Your task to perform on an android device: Do I have any events this weekend? Image 0: 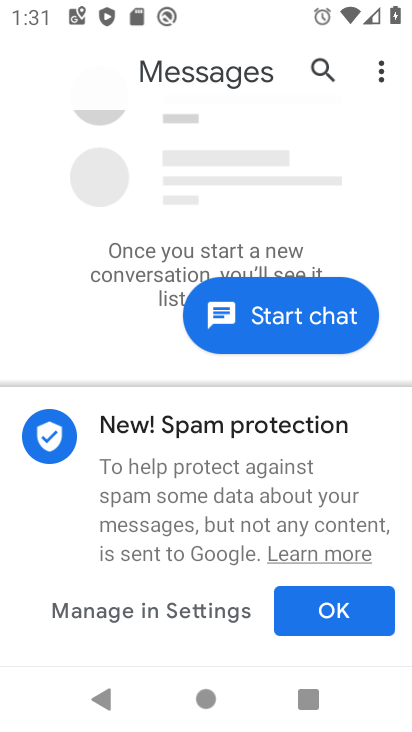
Step 0: drag from (228, 727) to (265, 148)
Your task to perform on an android device: Do I have any events this weekend? Image 1: 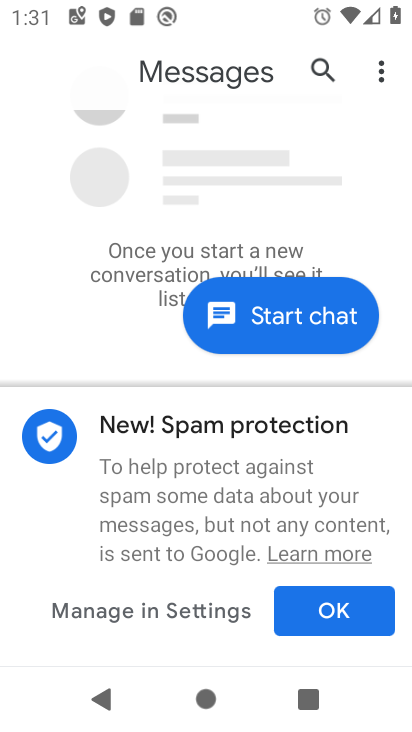
Step 1: press home button
Your task to perform on an android device: Do I have any events this weekend? Image 2: 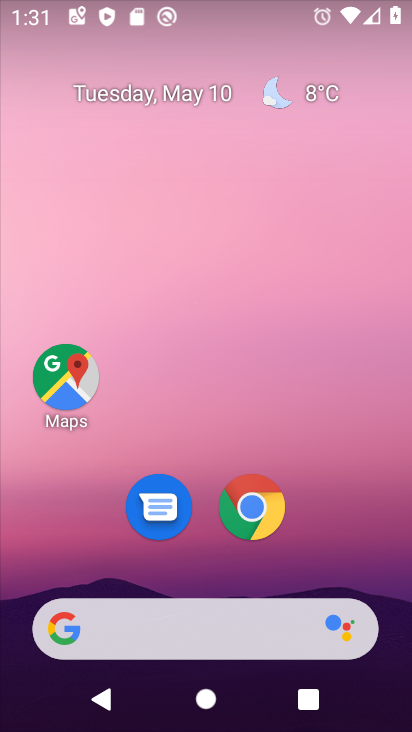
Step 2: drag from (219, 723) to (221, 172)
Your task to perform on an android device: Do I have any events this weekend? Image 3: 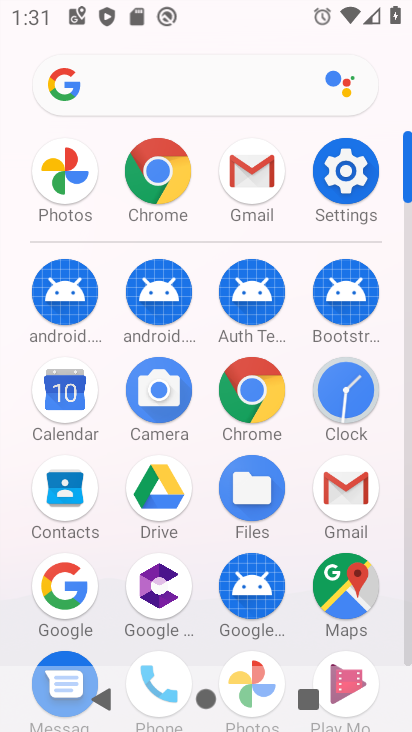
Step 3: click (60, 402)
Your task to perform on an android device: Do I have any events this weekend? Image 4: 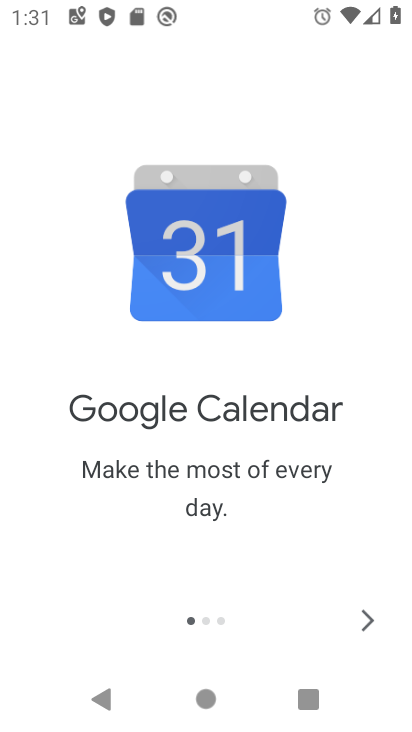
Step 4: click (368, 617)
Your task to perform on an android device: Do I have any events this weekend? Image 5: 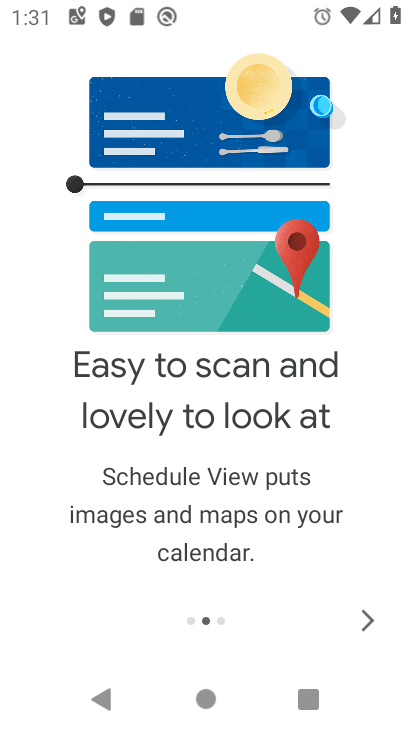
Step 5: click (362, 623)
Your task to perform on an android device: Do I have any events this weekend? Image 6: 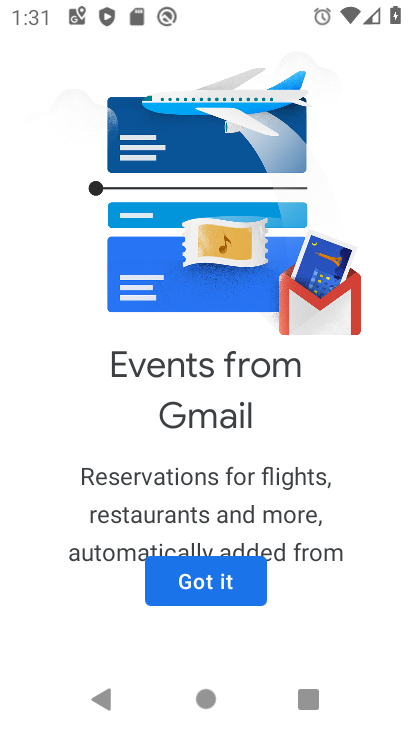
Step 6: click (210, 586)
Your task to perform on an android device: Do I have any events this weekend? Image 7: 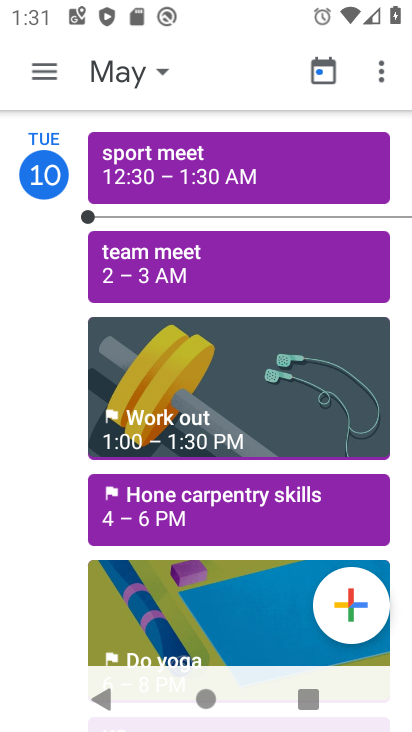
Step 7: click (49, 63)
Your task to perform on an android device: Do I have any events this weekend? Image 8: 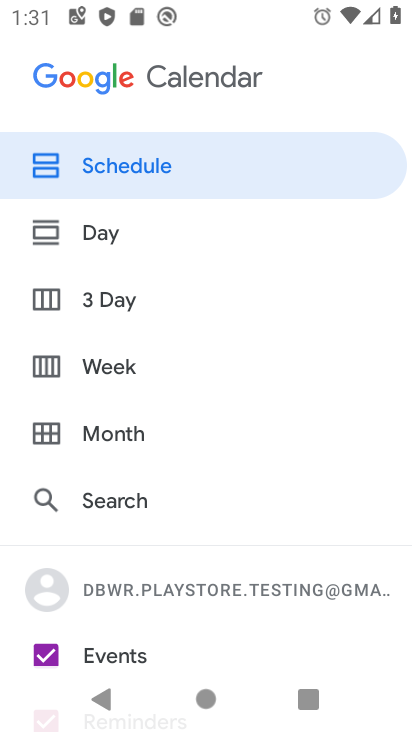
Step 8: drag from (128, 642) to (154, 272)
Your task to perform on an android device: Do I have any events this weekend? Image 9: 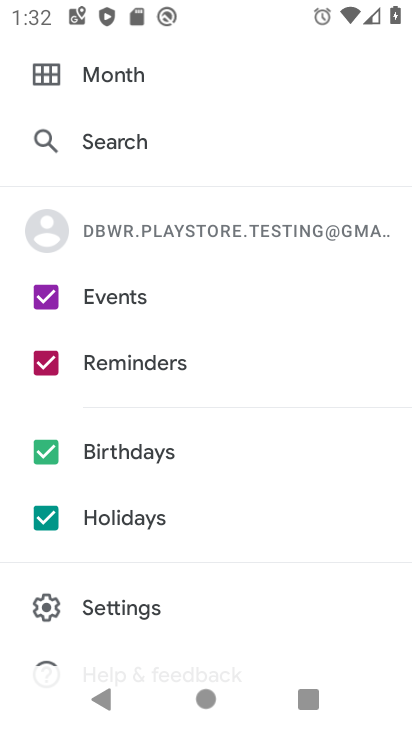
Step 9: click (47, 520)
Your task to perform on an android device: Do I have any events this weekend? Image 10: 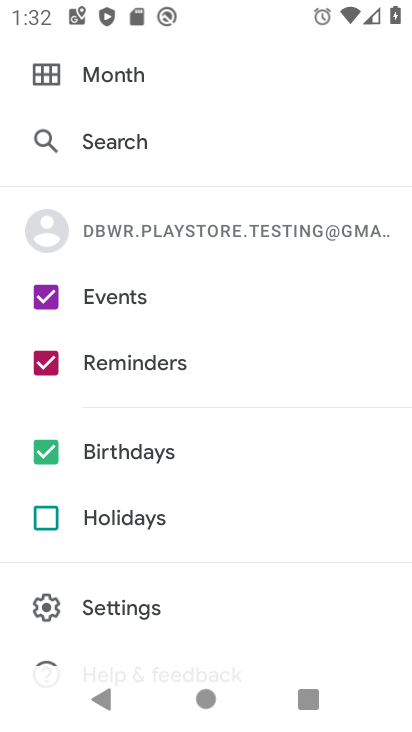
Step 10: click (46, 440)
Your task to perform on an android device: Do I have any events this weekend? Image 11: 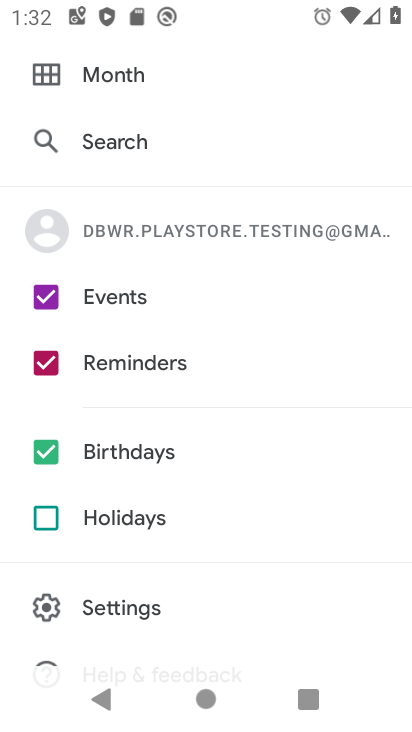
Step 11: click (47, 450)
Your task to perform on an android device: Do I have any events this weekend? Image 12: 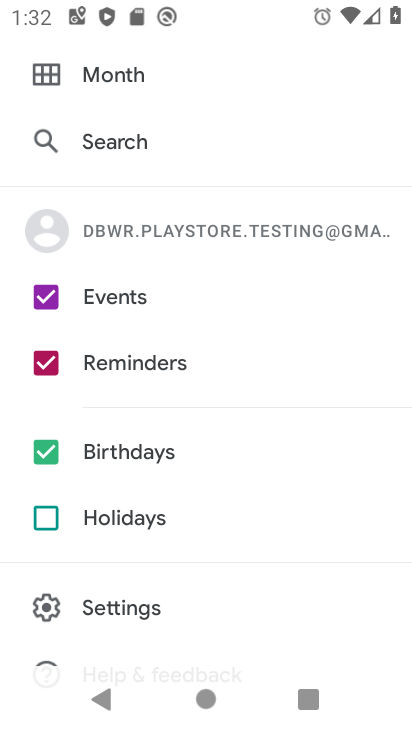
Step 12: click (46, 448)
Your task to perform on an android device: Do I have any events this weekend? Image 13: 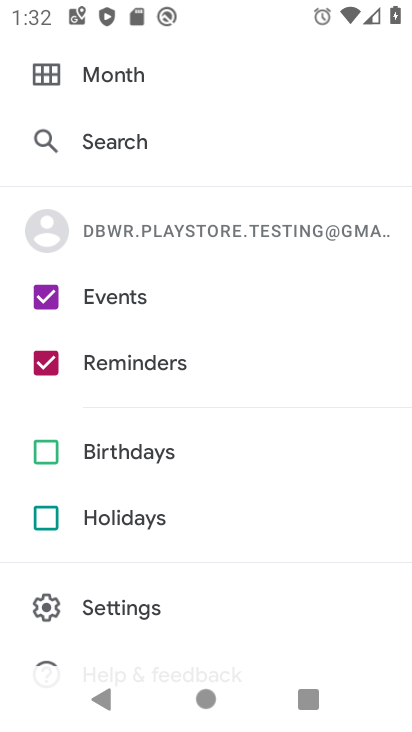
Step 13: click (48, 363)
Your task to perform on an android device: Do I have any events this weekend? Image 14: 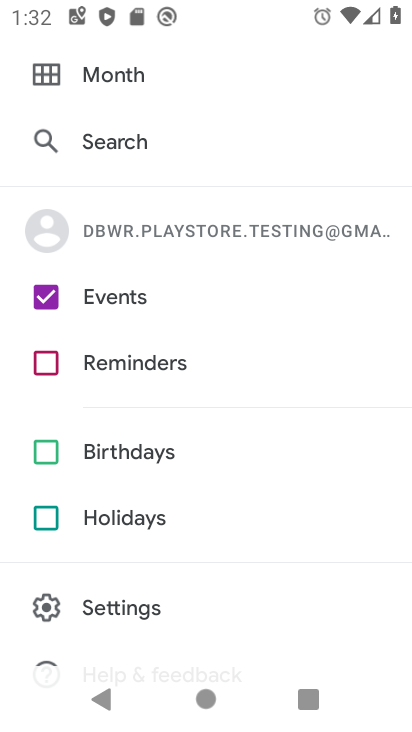
Step 14: drag from (312, 129) to (284, 571)
Your task to perform on an android device: Do I have any events this weekend? Image 15: 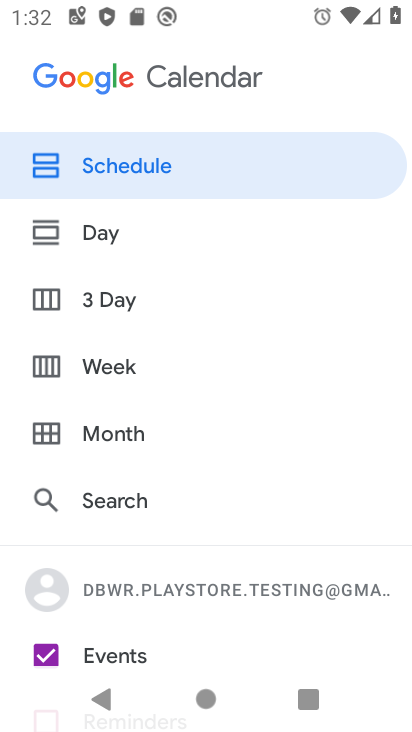
Step 15: click (113, 360)
Your task to perform on an android device: Do I have any events this weekend? Image 16: 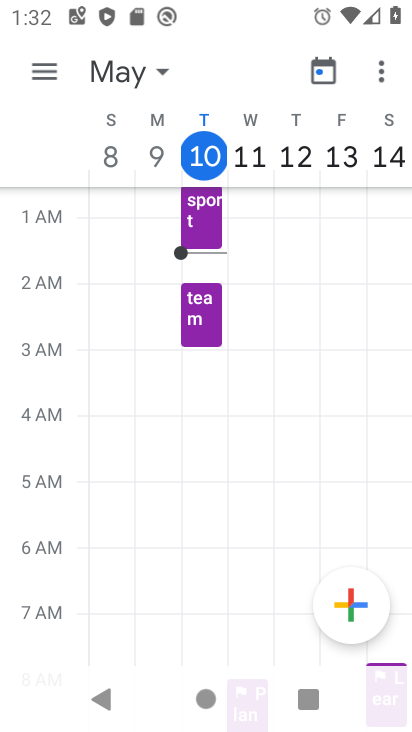
Step 16: drag from (392, 146) to (155, 145)
Your task to perform on an android device: Do I have any events this weekend? Image 17: 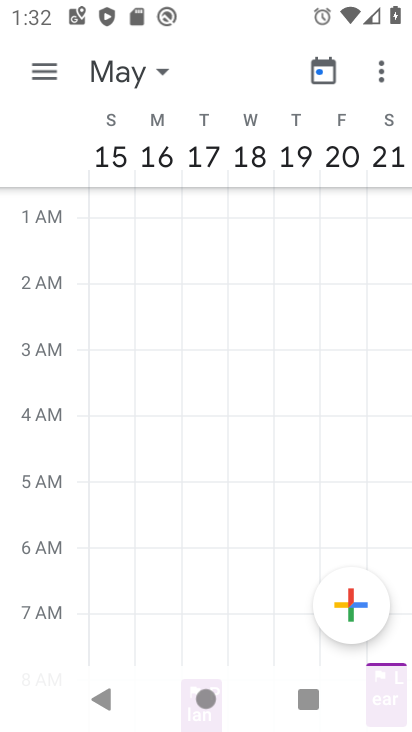
Step 17: drag from (109, 153) to (196, 149)
Your task to perform on an android device: Do I have any events this weekend? Image 18: 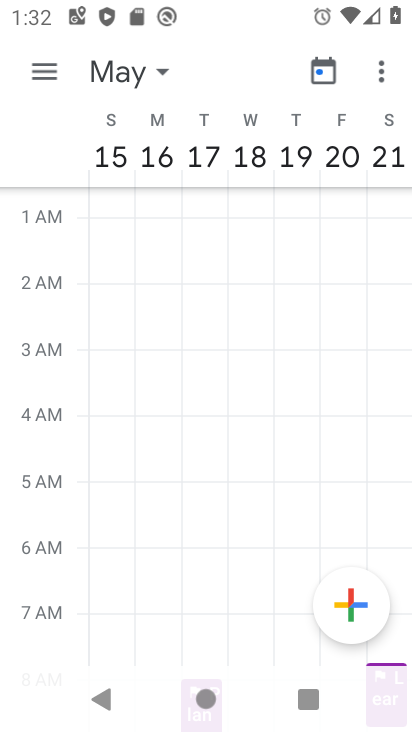
Step 18: click (110, 150)
Your task to perform on an android device: Do I have any events this weekend? Image 19: 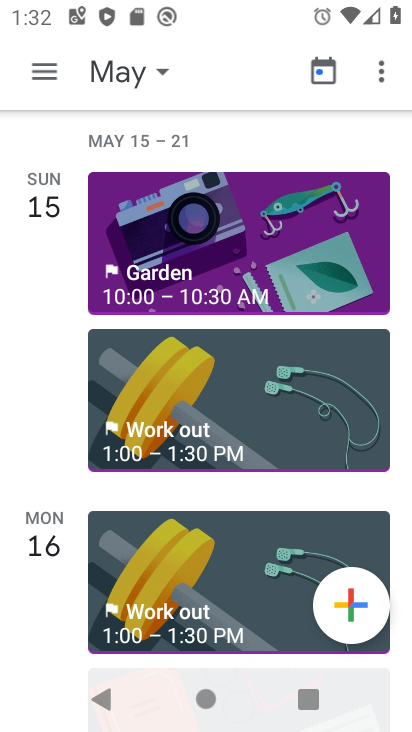
Step 19: task complete